Your task to perform on an android device: open a bookmark in the chrome app Image 0: 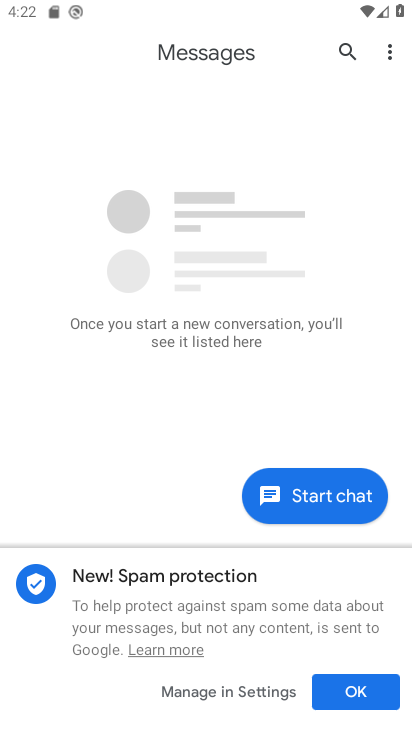
Step 0: press back button
Your task to perform on an android device: open a bookmark in the chrome app Image 1: 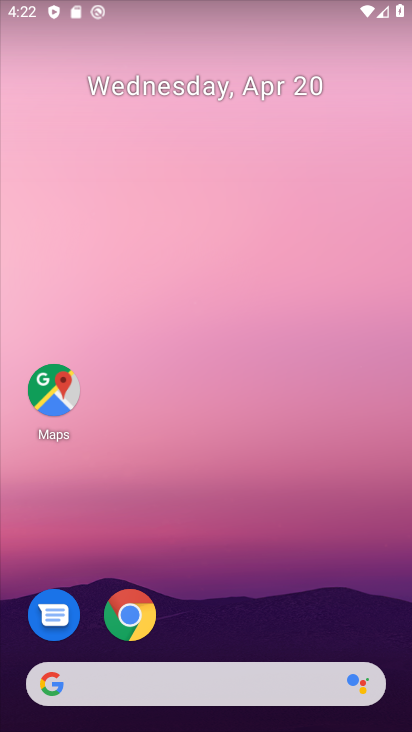
Step 1: drag from (200, 646) to (294, 175)
Your task to perform on an android device: open a bookmark in the chrome app Image 2: 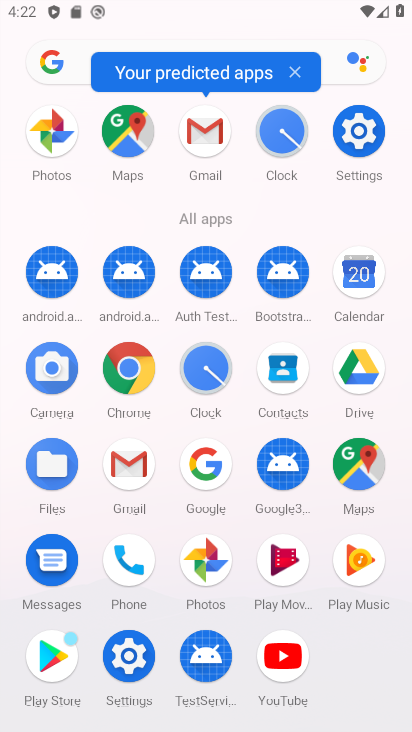
Step 2: click (123, 389)
Your task to perform on an android device: open a bookmark in the chrome app Image 3: 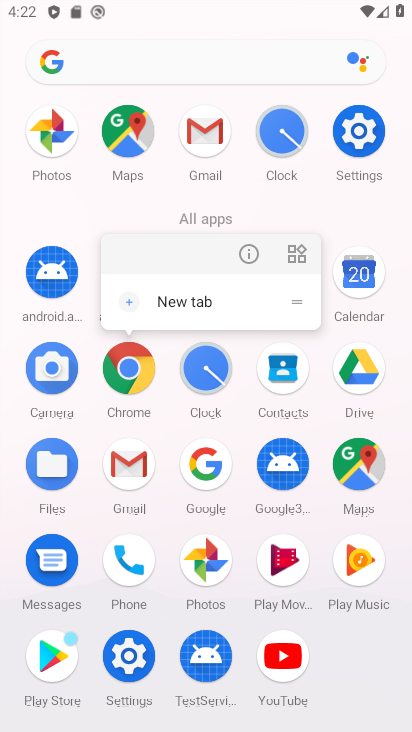
Step 3: click (134, 372)
Your task to perform on an android device: open a bookmark in the chrome app Image 4: 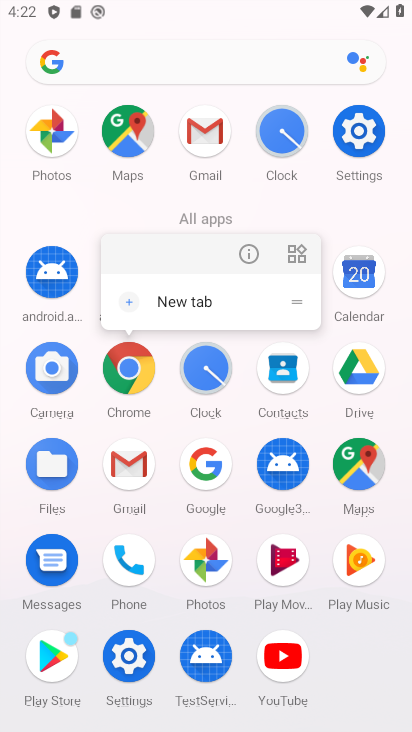
Step 4: click (135, 371)
Your task to perform on an android device: open a bookmark in the chrome app Image 5: 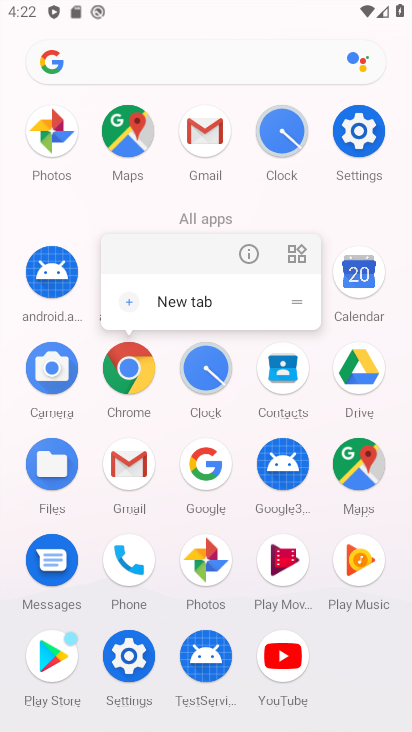
Step 5: click (130, 359)
Your task to perform on an android device: open a bookmark in the chrome app Image 6: 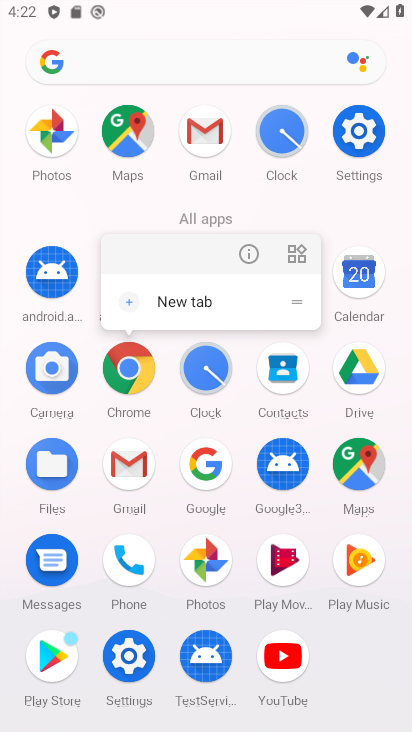
Step 6: click (130, 358)
Your task to perform on an android device: open a bookmark in the chrome app Image 7: 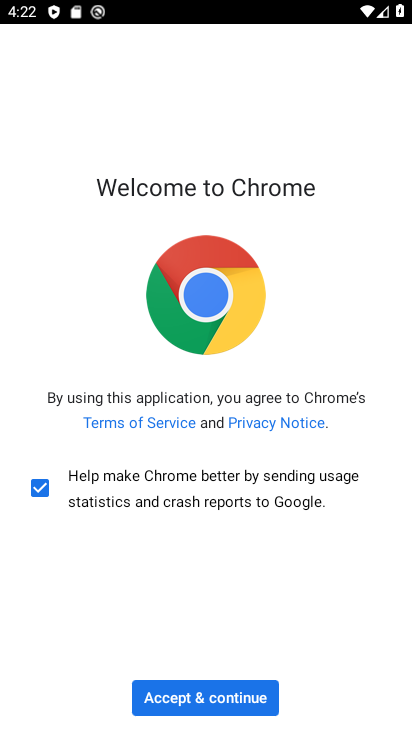
Step 7: click (221, 689)
Your task to perform on an android device: open a bookmark in the chrome app Image 8: 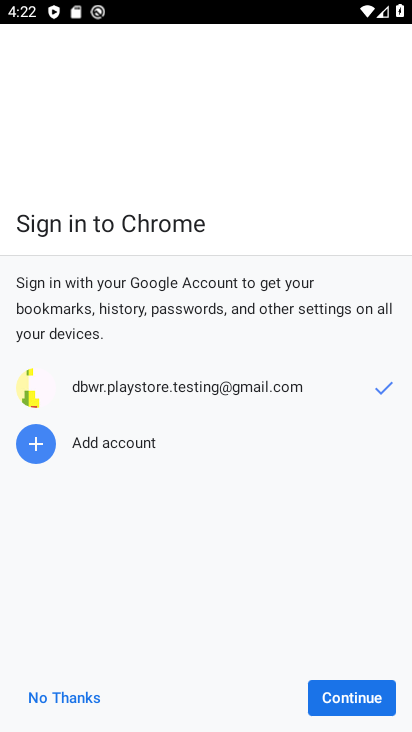
Step 8: click (358, 686)
Your task to perform on an android device: open a bookmark in the chrome app Image 9: 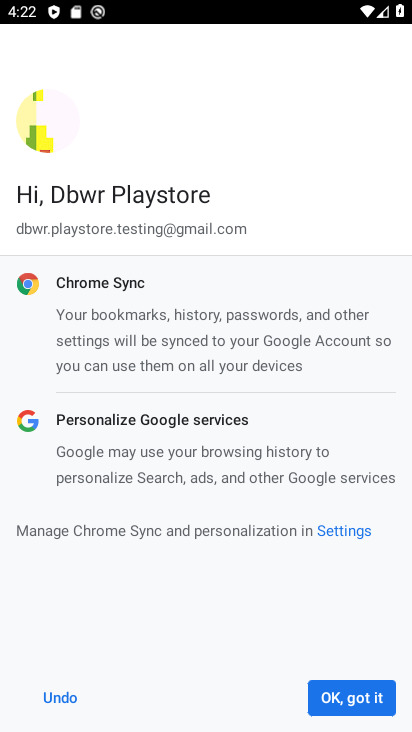
Step 9: click (371, 695)
Your task to perform on an android device: open a bookmark in the chrome app Image 10: 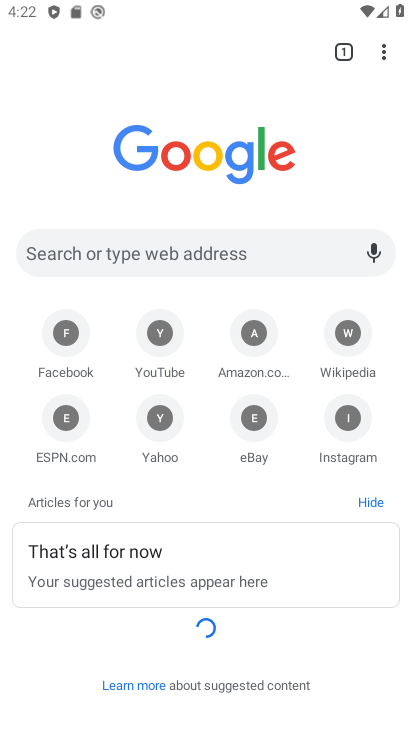
Step 10: task complete